Your task to perform on an android device: Do I have any events tomorrow? Image 0: 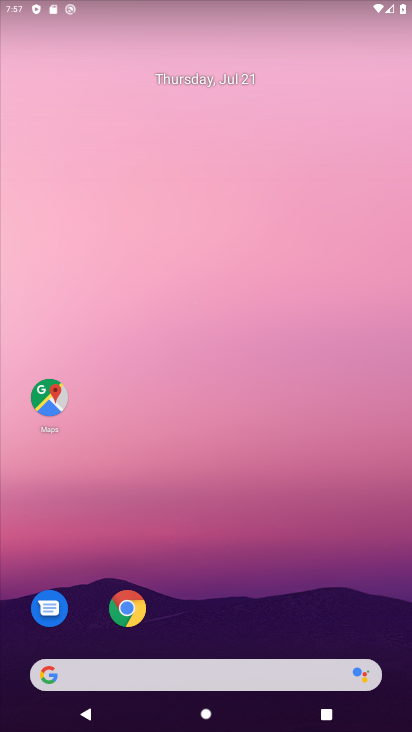
Step 0: press home button
Your task to perform on an android device: Do I have any events tomorrow? Image 1: 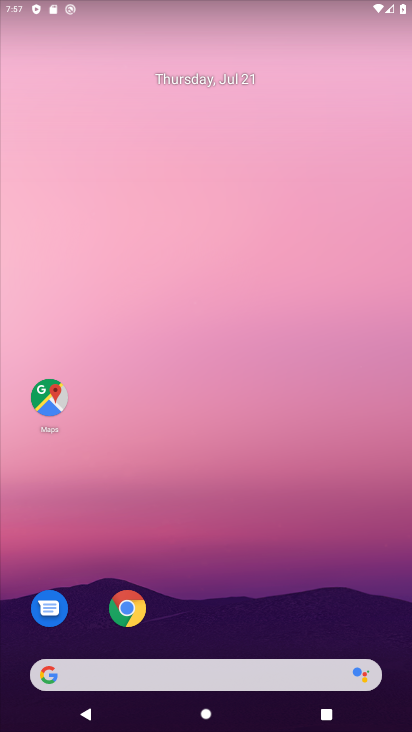
Step 1: drag from (214, 644) to (226, 26)
Your task to perform on an android device: Do I have any events tomorrow? Image 2: 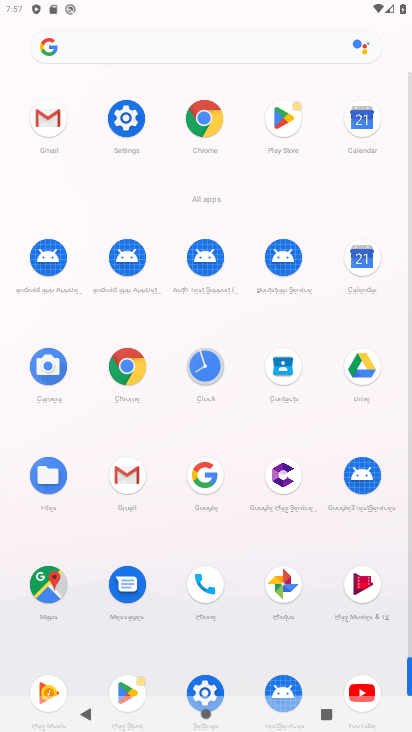
Step 2: click (356, 255)
Your task to perform on an android device: Do I have any events tomorrow? Image 3: 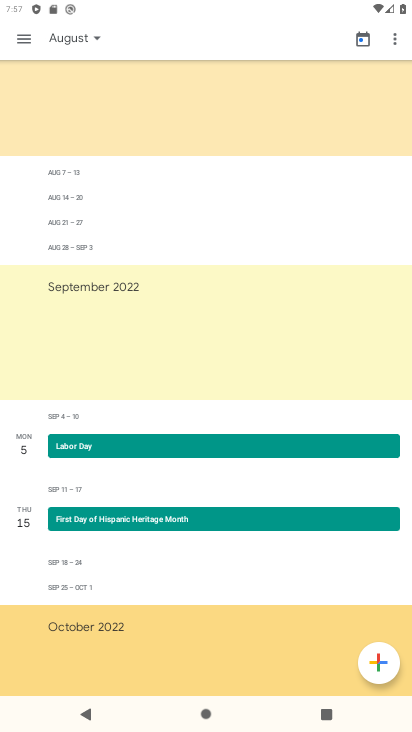
Step 3: drag from (41, 106) to (131, 633)
Your task to perform on an android device: Do I have any events tomorrow? Image 4: 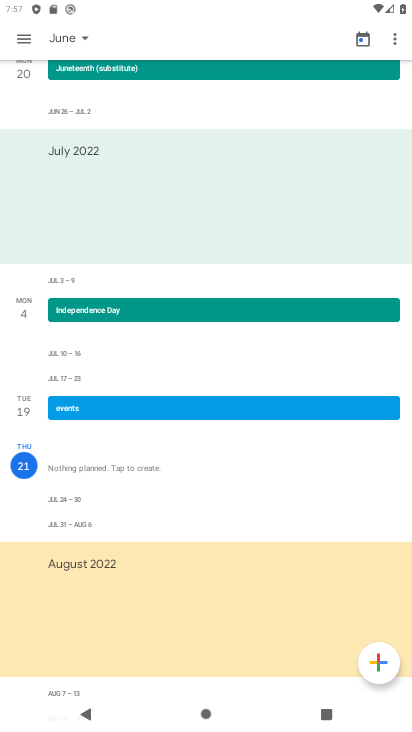
Step 4: click (24, 461)
Your task to perform on an android device: Do I have any events tomorrow? Image 5: 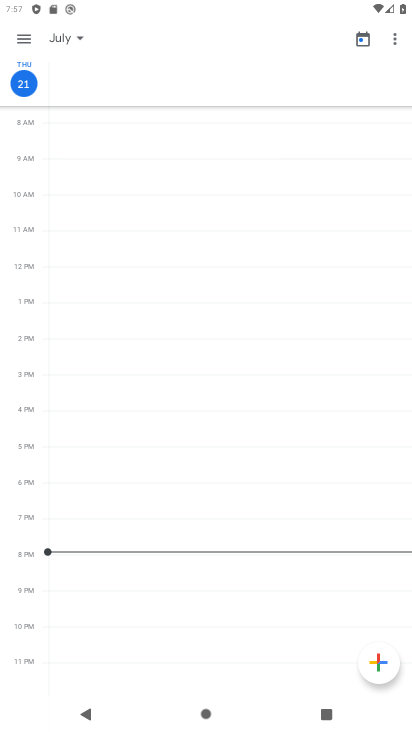
Step 5: click (81, 36)
Your task to perform on an android device: Do I have any events tomorrow? Image 6: 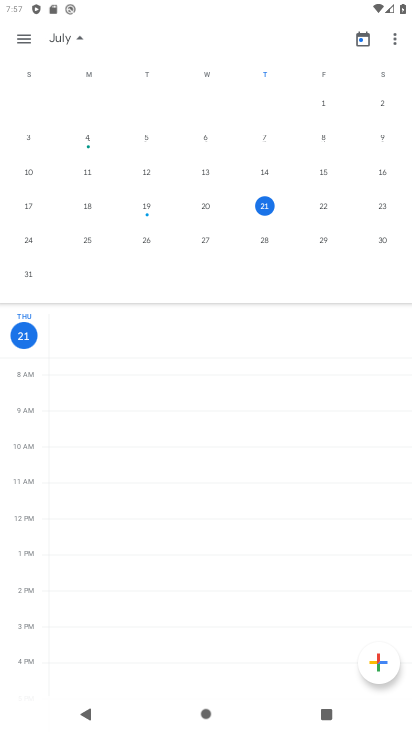
Step 6: click (324, 204)
Your task to perform on an android device: Do I have any events tomorrow? Image 7: 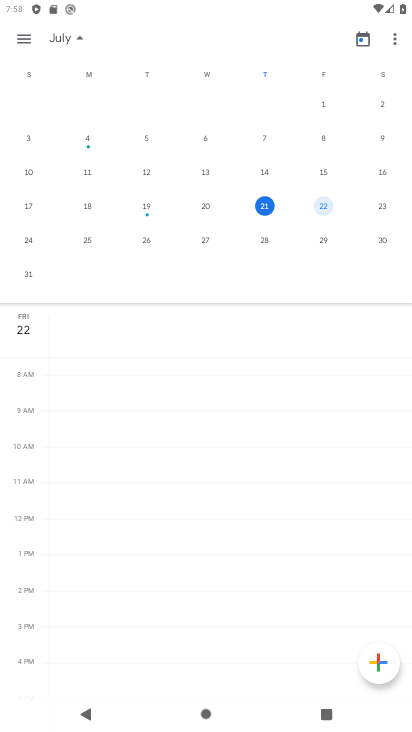
Step 7: click (27, 327)
Your task to perform on an android device: Do I have any events tomorrow? Image 8: 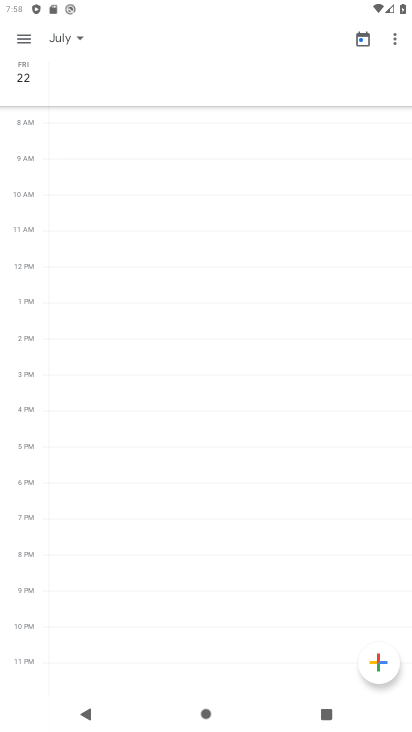
Step 8: task complete